Your task to perform on an android device: Show me the best rated vacuum on Walmart. Image 0: 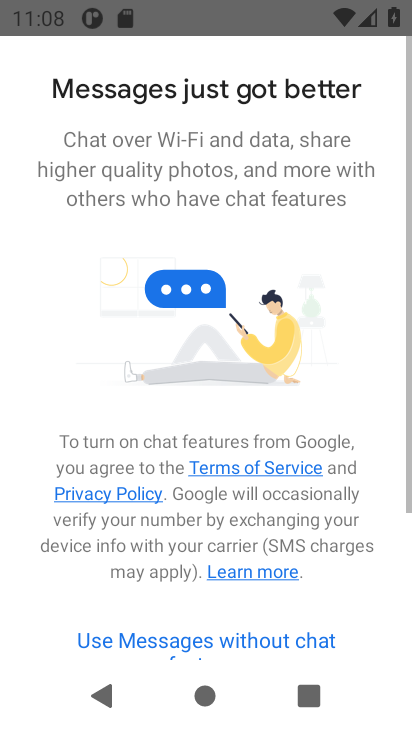
Step 0: task complete